Your task to perform on an android device: When is my next meeting? Image 0: 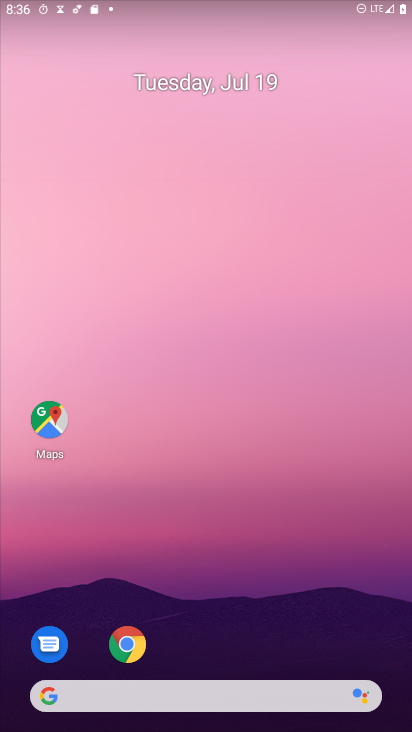
Step 0: click (131, 700)
Your task to perform on an android device: When is my next meeting? Image 1: 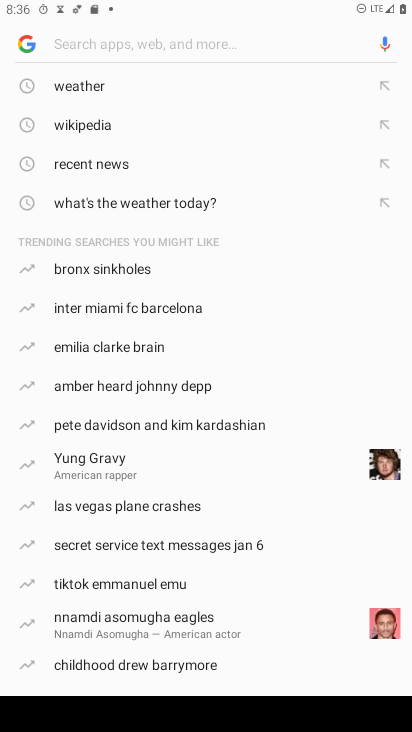
Step 1: type "When is my next meeting?"
Your task to perform on an android device: When is my next meeting? Image 2: 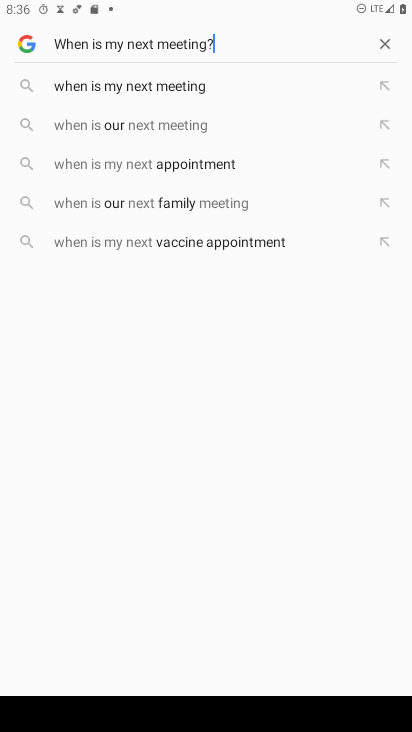
Step 2: type ""
Your task to perform on an android device: When is my next meeting? Image 3: 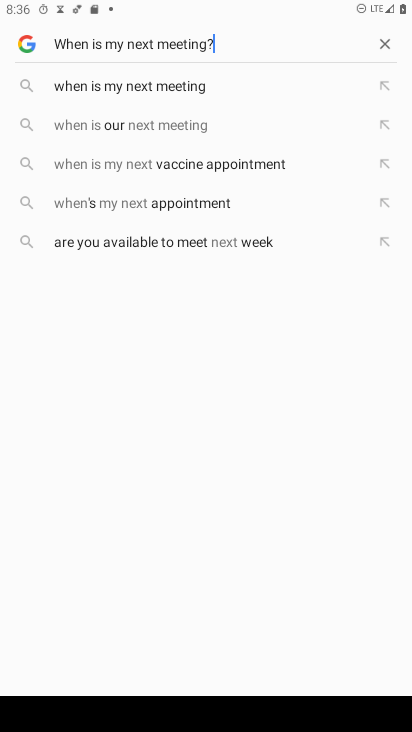
Step 3: click (128, 86)
Your task to perform on an android device: When is my next meeting? Image 4: 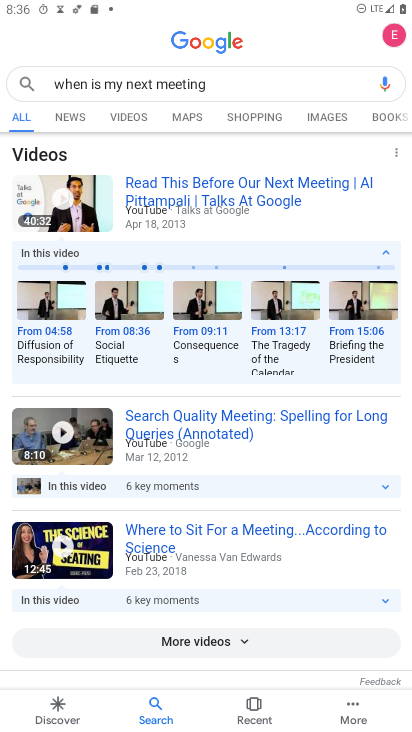
Step 4: task complete